Your task to perform on an android device: Do I have any events today? Image 0: 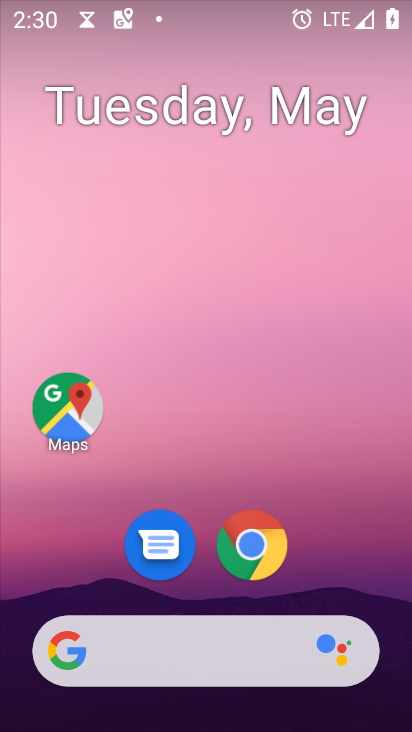
Step 0: drag from (330, 478) to (248, 21)
Your task to perform on an android device: Do I have any events today? Image 1: 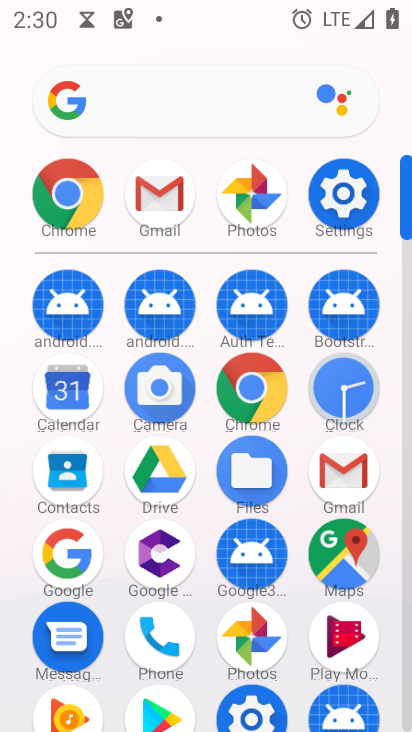
Step 1: drag from (10, 578) to (11, 262)
Your task to perform on an android device: Do I have any events today? Image 2: 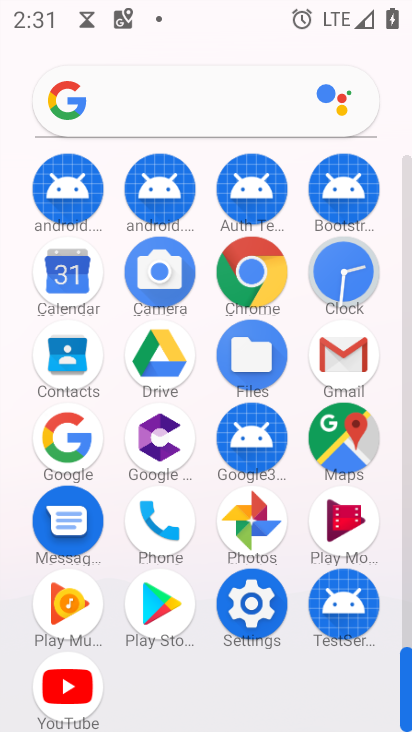
Step 2: click (68, 267)
Your task to perform on an android device: Do I have any events today? Image 3: 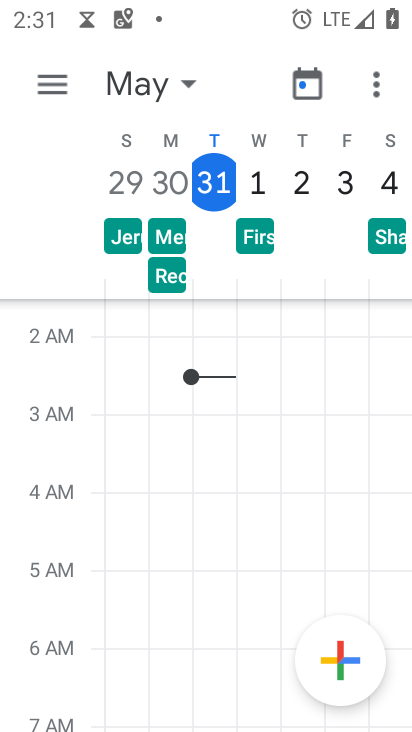
Step 3: click (312, 82)
Your task to perform on an android device: Do I have any events today? Image 4: 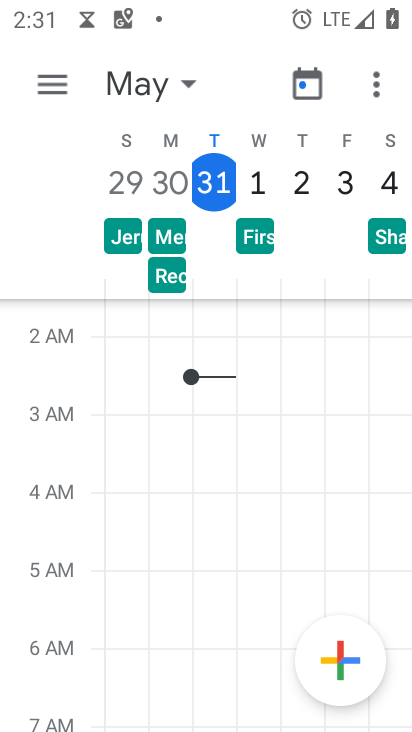
Step 4: task complete